Your task to perform on an android device: Open the Play Movies app and select the watchlist tab. Image 0: 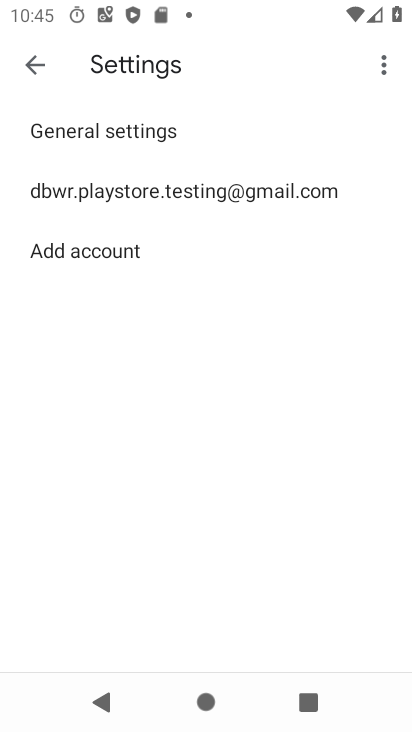
Step 0: press home button
Your task to perform on an android device: Open the Play Movies app and select the watchlist tab. Image 1: 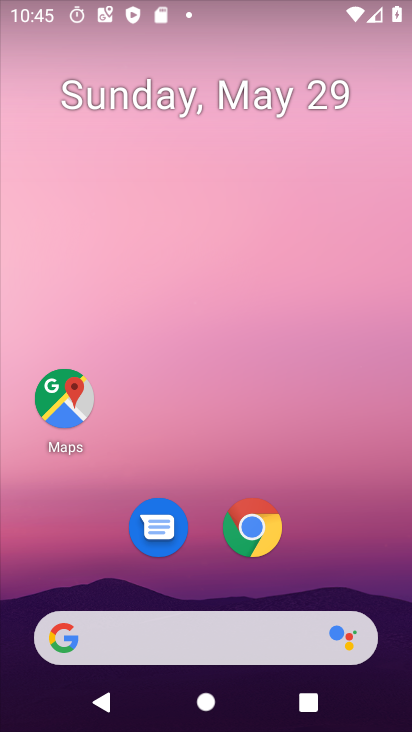
Step 1: drag from (363, 483) to (303, 65)
Your task to perform on an android device: Open the Play Movies app and select the watchlist tab. Image 2: 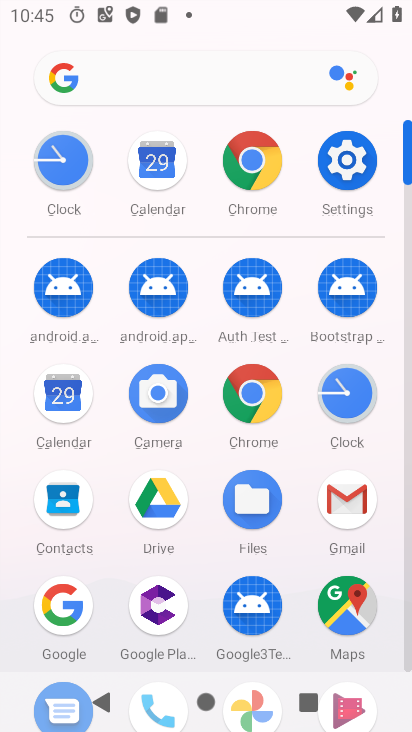
Step 2: drag from (300, 556) to (308, 210)
Your task to perform on an android device: Open the Play Movies app and select the watchlist tab. Image 3: 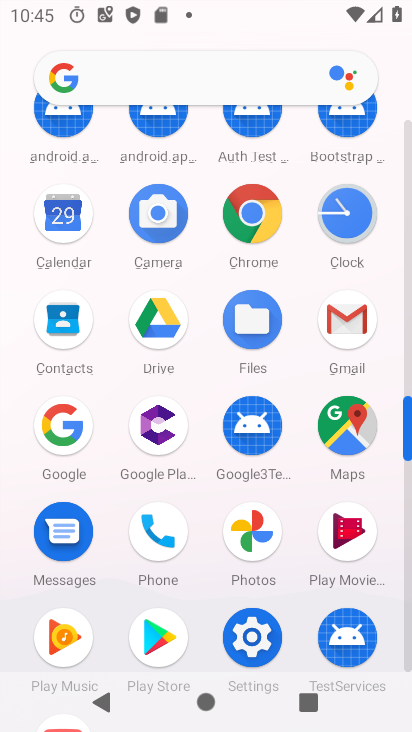
Step 3: click (336, 548)
Your task to perform on an android device: Open the Play Movies app and select the watchlist tab. Image 4: 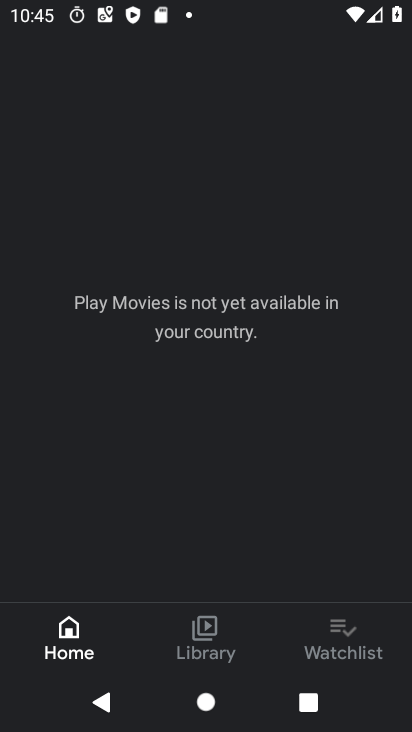
Step 4: click (319, 643)
Your task to perform on an android device: Open the Play Movies app and select the watchlist tab. Image 5: 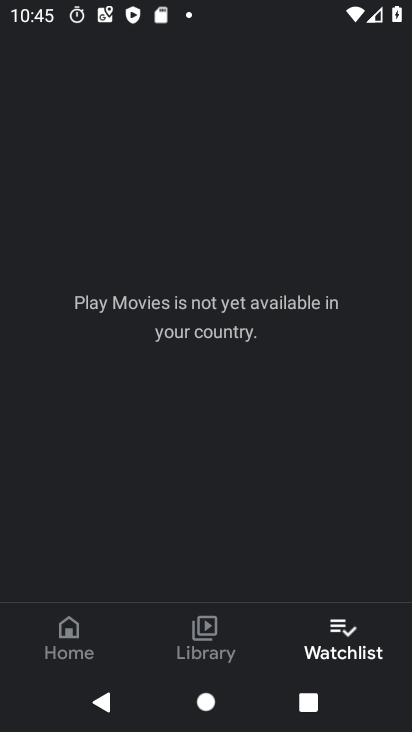
Step 5: task complete